Your task to perform on an android device: Open the calendar app, open the side menu, and click the "Day" option Image 0: 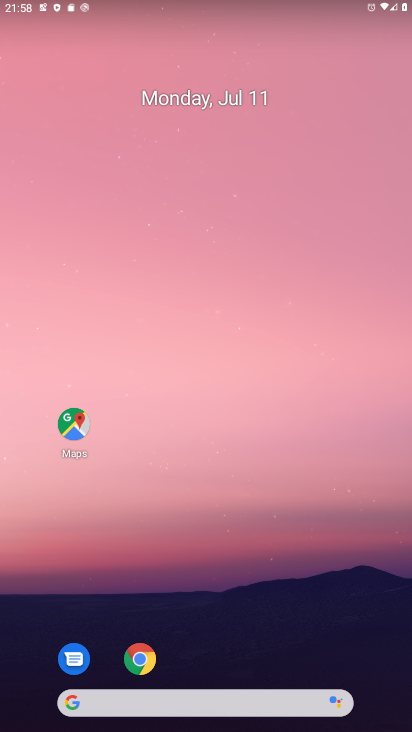
Step 0: click (397, 126)
Your task to perform on an android device: Open the calendar app, open the side menu, and click the "Day" option Image 1: 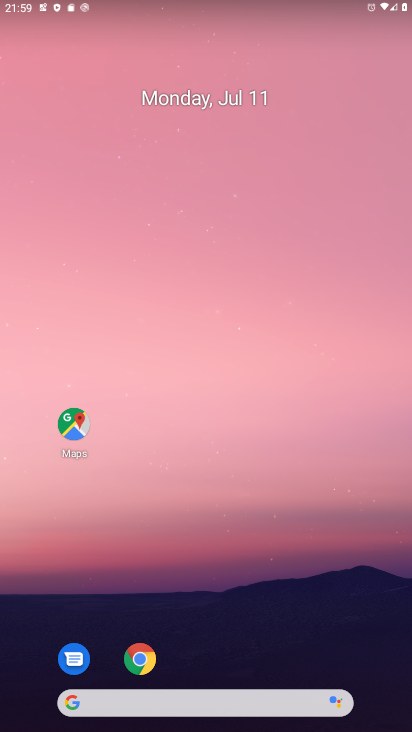
Step 1: drag from (210, 613) to (239, 0)
Your task to perform on an android device: Open the calendar app, open the side menu, and click the "Day" option Image 2: 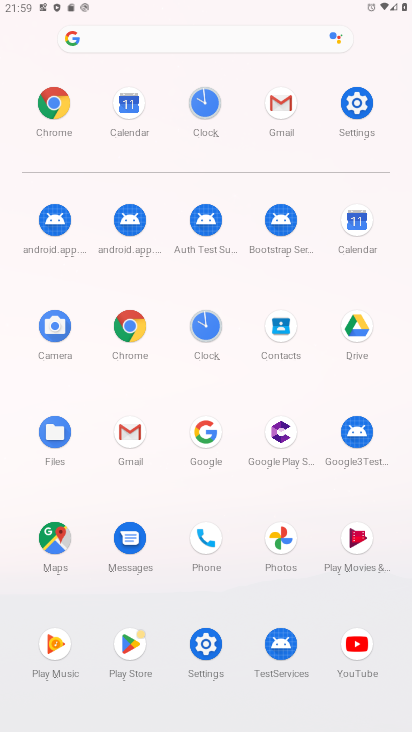
Step 2: click (354, 221)
Your task to perform on an android device: Open the calendar app, open the side menu, and click the "Day" option Image 3: 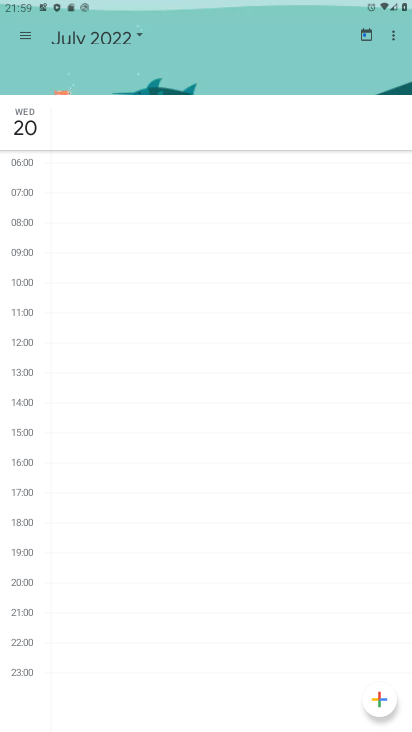
Step 3: click (78, 31)
Your task to perform on an android device: Open the calendar app, open the side menu, and click the "Day" option Image 4: 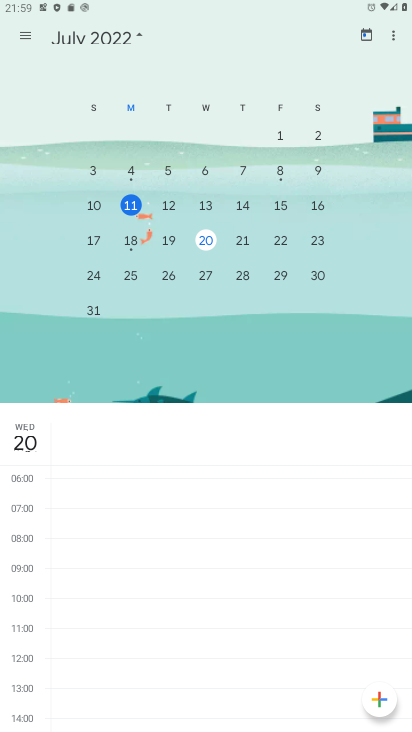
Step 4: click (29, 32)
Your task to perform on an android device: Open the calendar app, open the side menu, and click the "Day" option Image 5: 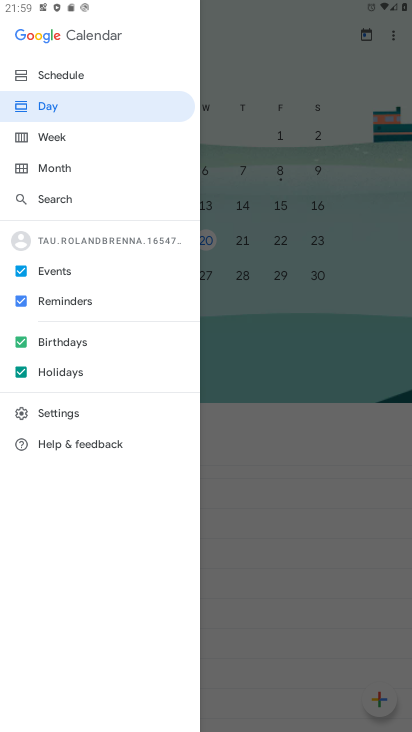
Step 5: click (71, 106)
Your task to perform on an android device: Open the calendar app, open the side menu, and click the "Day" option Image 6: 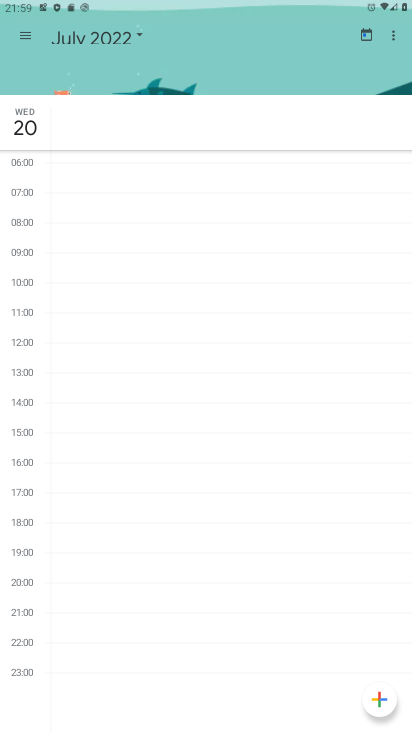
Step 6: task complete